Your task to perform on an android device: Open Android settings Image 0: 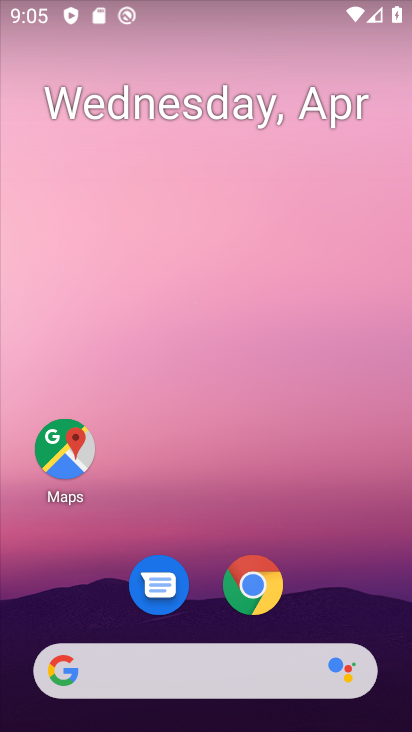
Step 0: drag from (311, 525) to (325, 175)
Your task to perform on an android device: Open Android settings Image 1: 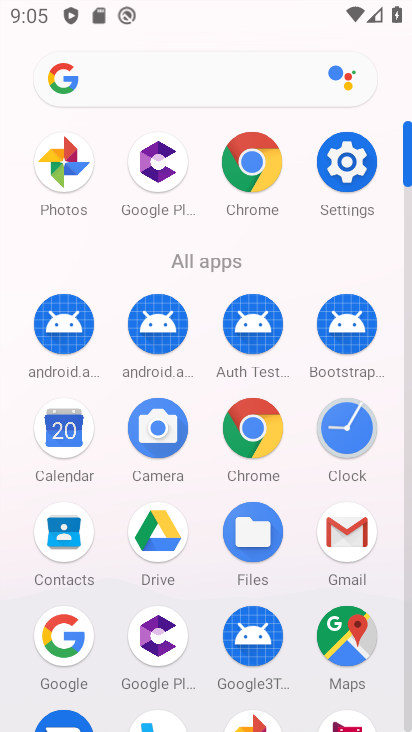
Step 1: click (325, 175)
Your task to perform on an android device: Open Android settings Image 2: 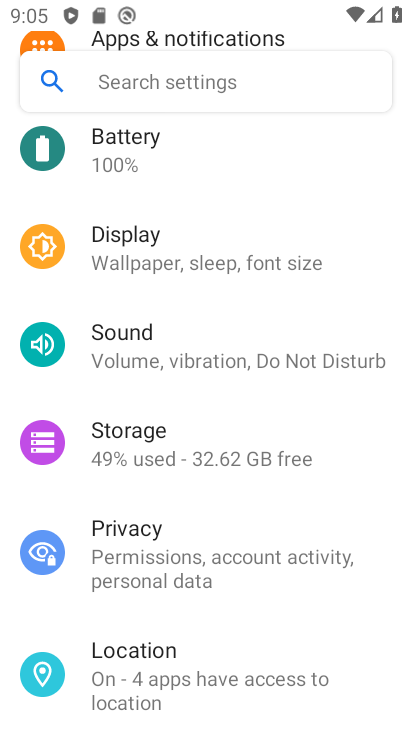
Step 2: drag from (198, 525) to (236, 224)
Your task to perform on an android device: Open Android settings Image 3: 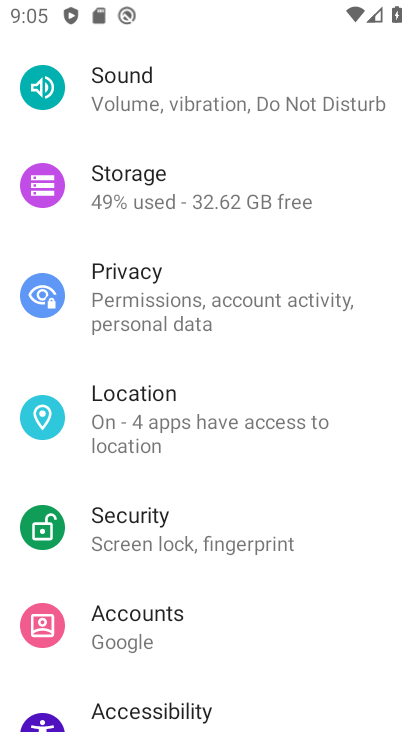
Step 3: drag from (227, 504) to (268, 188)
Your task to perform on an android device: Open Android settings Image 4: 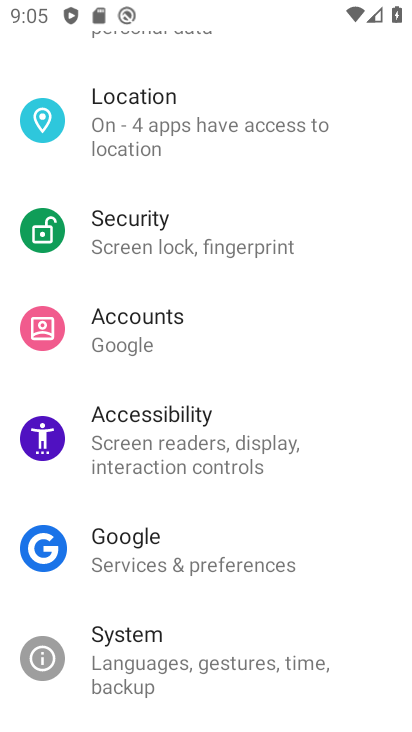
Step 4: drag from (229, 528) to (243, 183)
Your task to perform on an android device: Open Android settings Image 5: 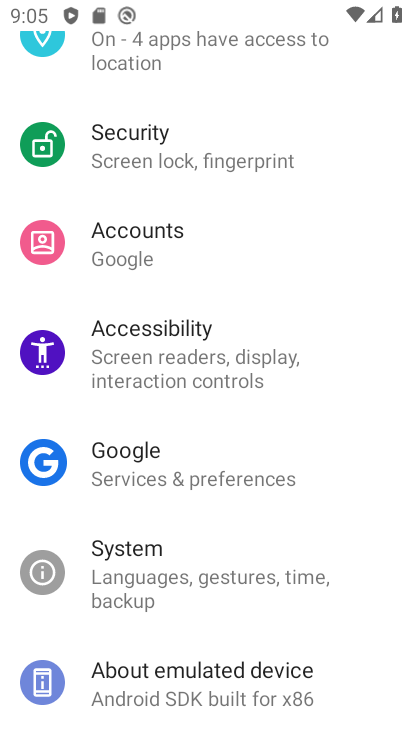
Step 5: click (204, 678)
Your task to perform on an android device: Open Android settings Image 6: 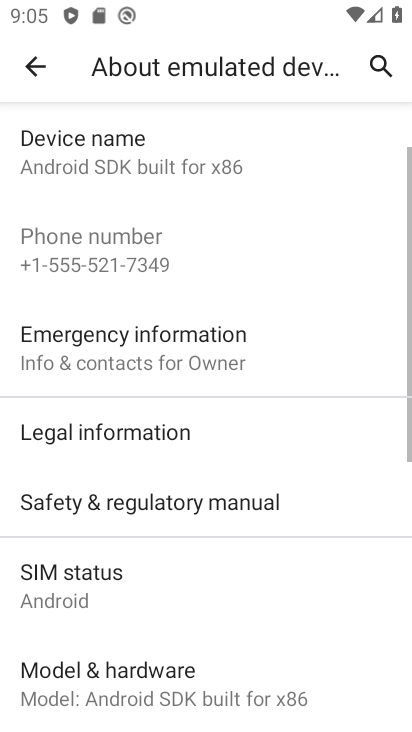
Step 6: click (156, 153)
Your task to perform on an android device: Open Android settings Image 7: 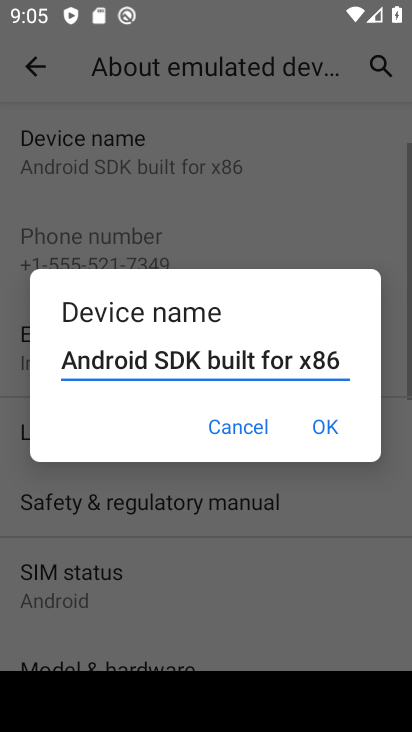
Step 7: click (324, 423)
Your task to perform on an android device: Open Android settings Image 8: 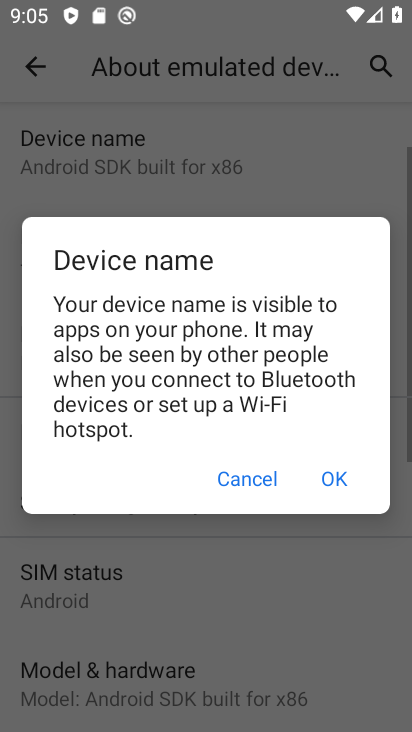
Step 8: click (329, 475)
Your task to perform on an android device: Open Android settings Image 9: 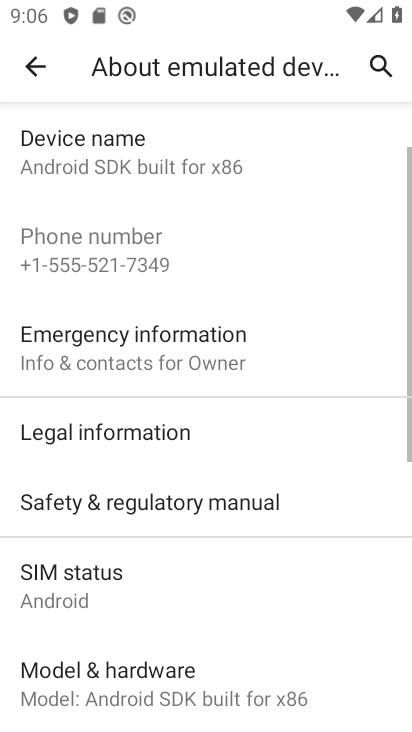
Step 9: task complete